Your task to perform on an android device: create a new album in the google photos Image 0: 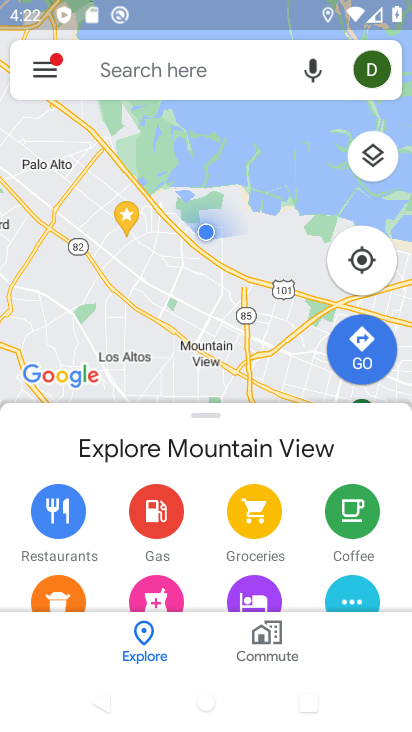
Step 0: press home button
Your task to perform on an android device: create a new album in the google photos Image 1: 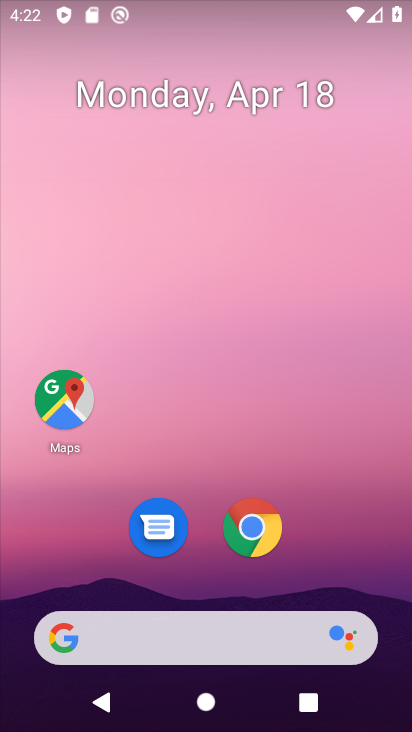
Step 1: drag from (209, 577) to (233, 111)
Your task to perform on an android device: create a new album in the google photos Image 2: 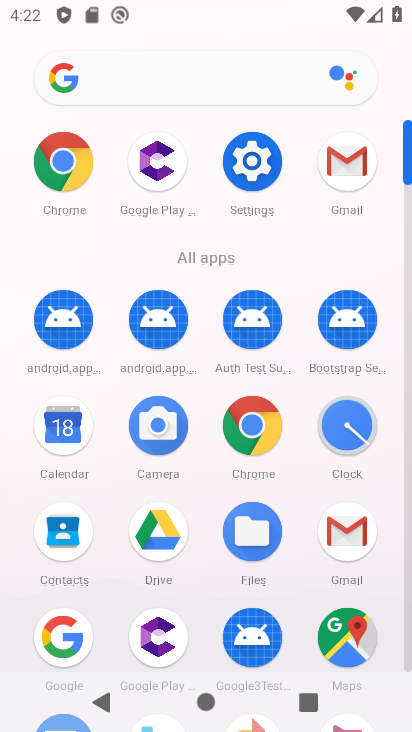
Step 2: drag from (203, 599) to (231, 217)
Your task to perform on an android device: create a new album in the google photos Image 3: 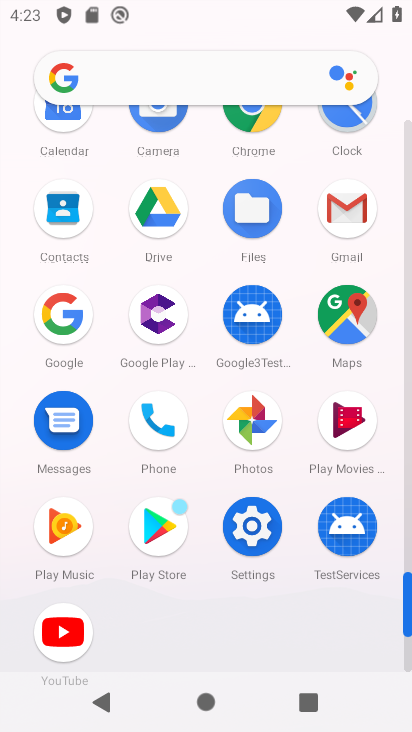
Step 3: click (249, 415)
Your task to perform on an android device: create a new album in the google photos Image 4: 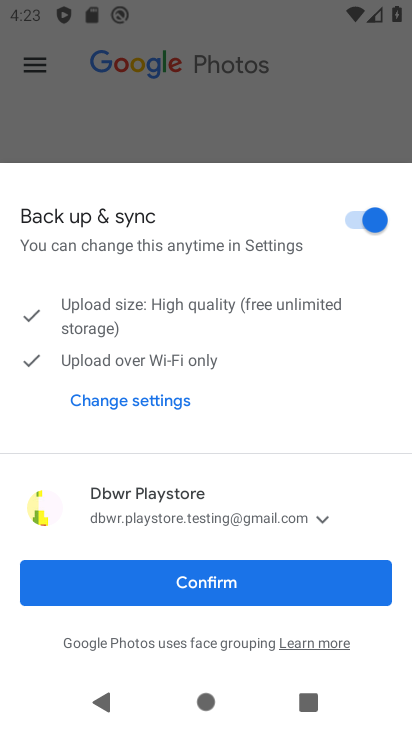
Step 4: click (222, 583)
Your task to perform on an android device: create a new album in the google photos Image 5: 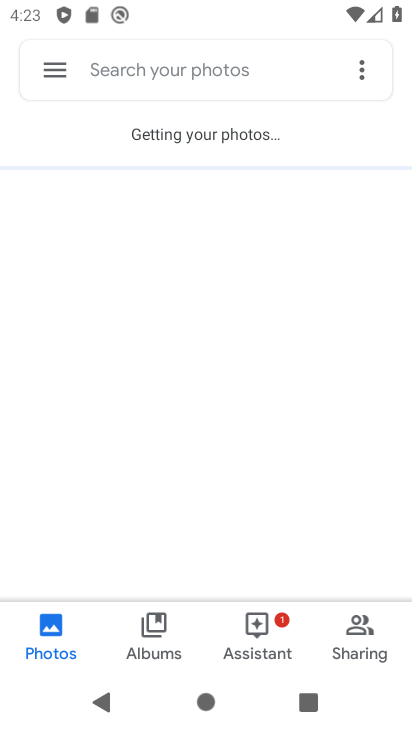
Step 5: click (159, 614)
Your task to perform on an android device: create a new album in the google photos Image 6: 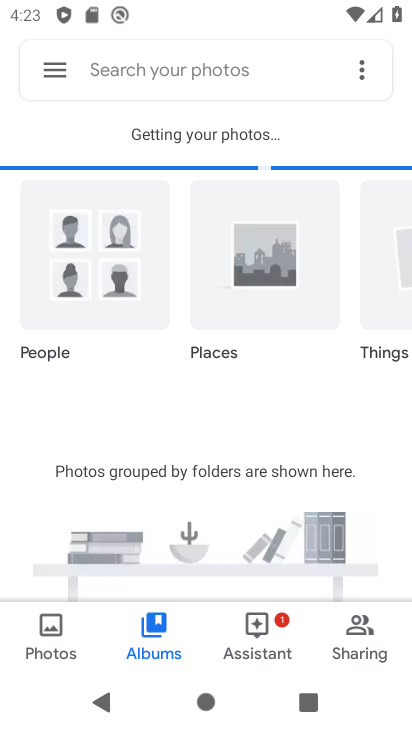
Step 6: click (359, 70)
Your task to perform on an android device: create a new album in the google photos Image 7: 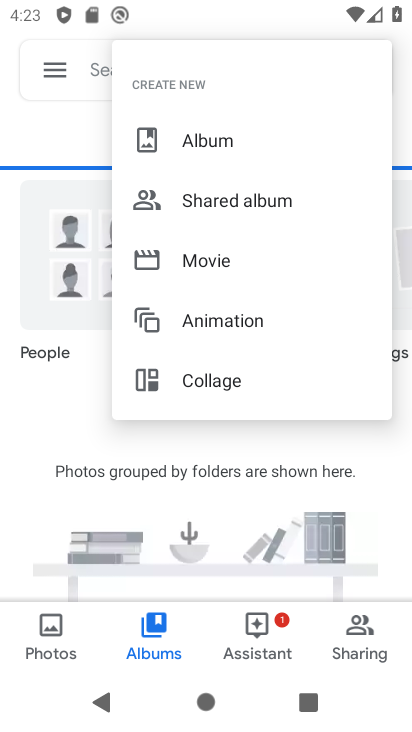
Step 7: click (225, 134)
Your task to perform on an android device: create a new album in the google photos Image 8: 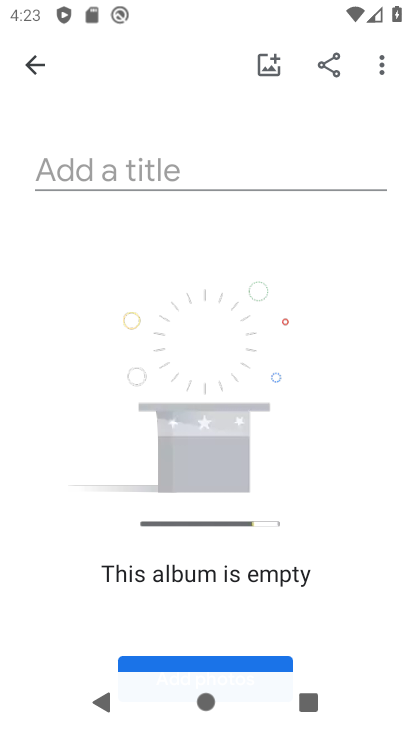
Step 8: drag from (214, 611) to (225, 393)
Your task to perform on an android device: create a new album in the google photos Image 9: 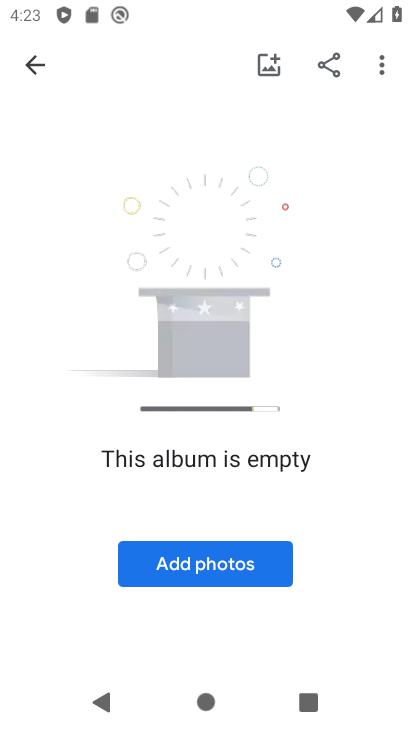
Step 9: click (198, 557)
Your task to perform on an android device: create a new album in the google photos Image 10: 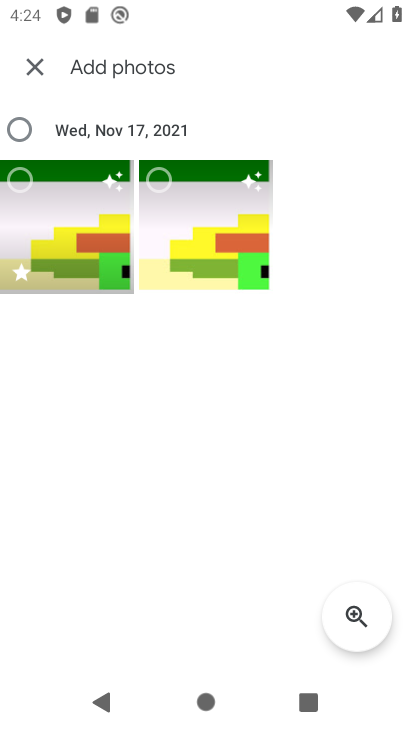
Step 10: click (19, 133)
Your task to perform on an android device: create a new album in the google photos Image 11: 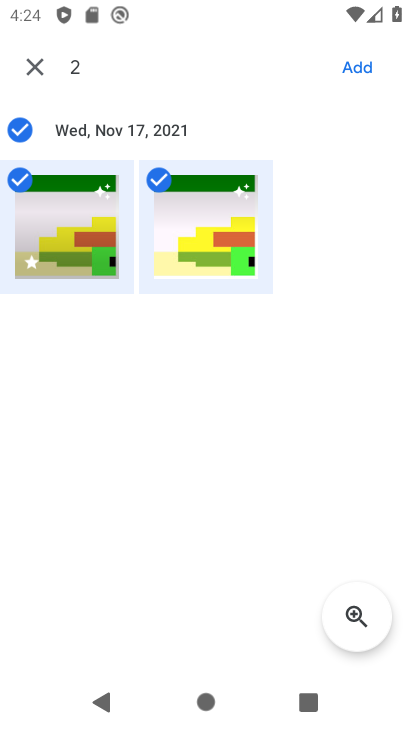
Step 11: click (355, 62)
Your task to perform on an android device: create a new album in the google photos Image 12: 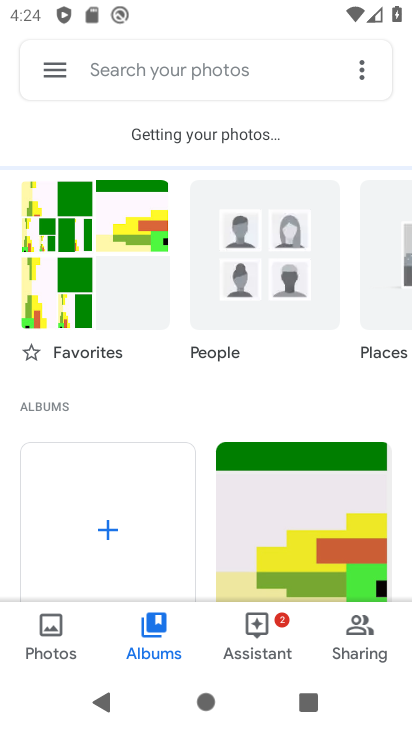
Step 12: click (358, 71)
Your task to perform on an android device: create a new album in the google photos Image 13: 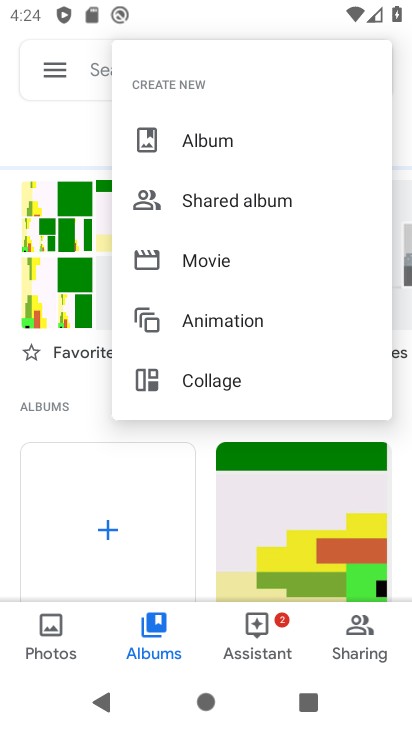
Step 13: click (230, 133)
Your task to perform on an android device: create a new album in the google photos Image 14: 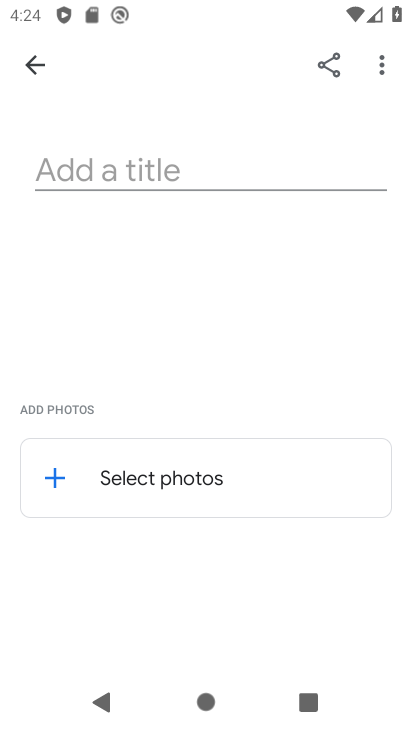
Step 14: click (67, 475)
Your task to perform on an android device: create a new album in the google photos Image 15: 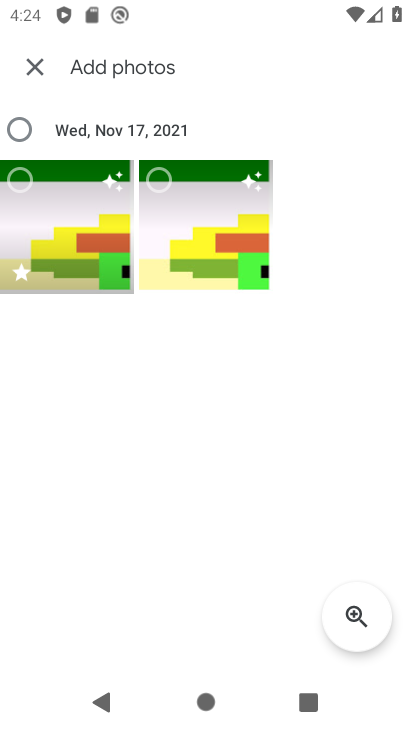
Step 15: click (22, 125)
Your task to perform on an android device: create a new album in the google photos Image 16: 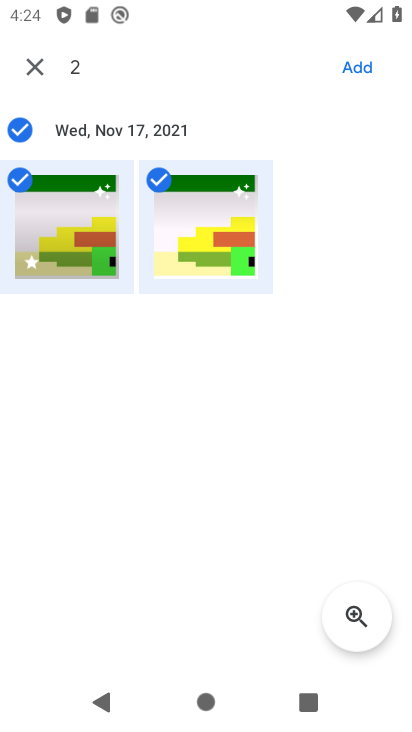
Step 16: click (352, 59)
Your task to perform on an android device: create a new album in the google photos Image 17: 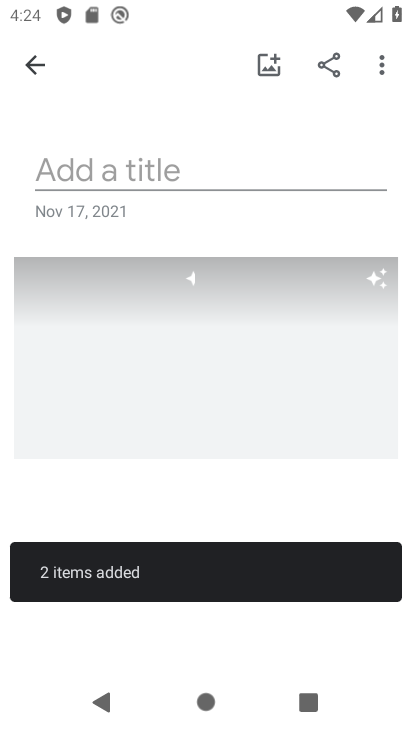
Step 17: click (117, 156)
Your task to perform on an android device: create a new album in the google photos Image 18: 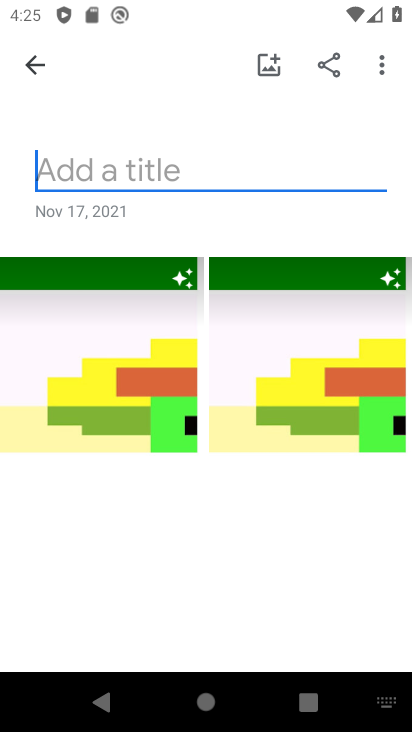
Step 18: type "vhfhg"
Your task to perform on an android device: create a new album in the google photos Image 19: 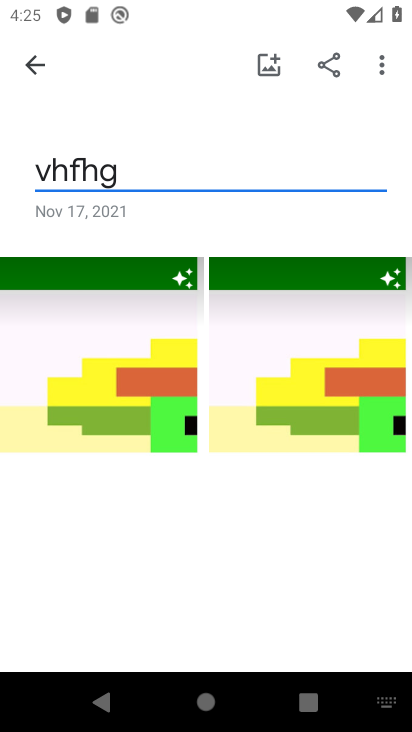
Step 19: click (127, 578)
Your task to perform on an android device: create a new album in the google photos Image 20: 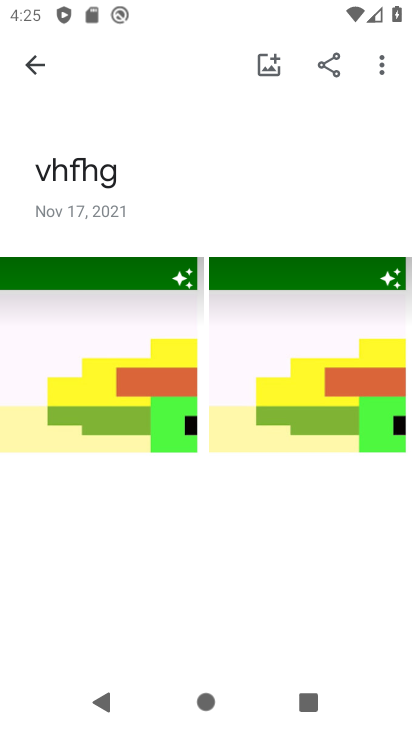
Step 20: task complete